Your task to perform on an android device: change the upload size in google photos Image 0: 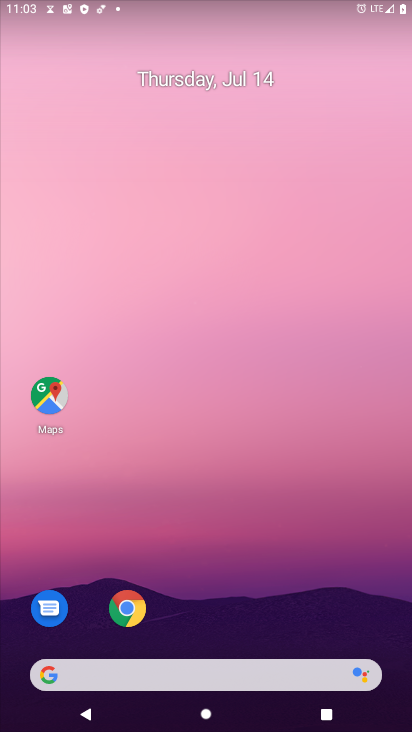
Step 0: drag from (253, 699) to (234, 199)
Your task to perform on an android device: change the upload size in google photos Image 1: 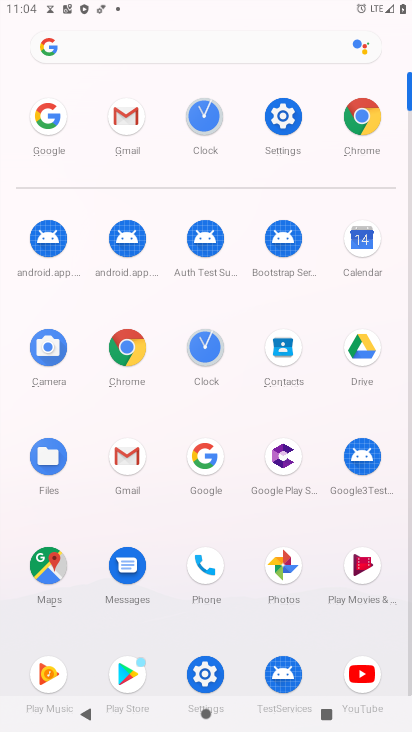
Step 1: click (290, 561)
Your task to perform on an android device: change the upload size in google photos Image 2: 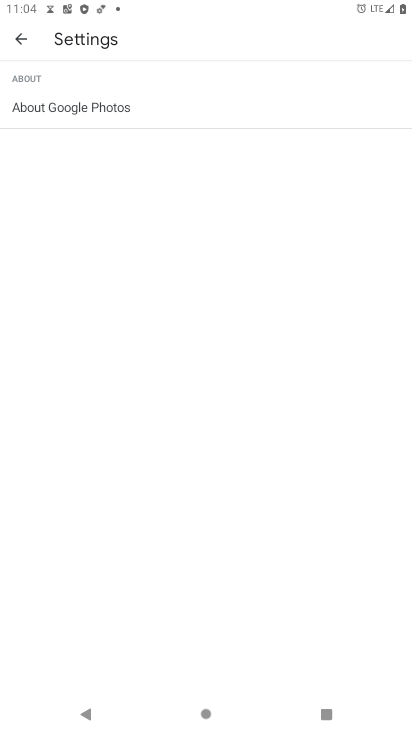
Step 2: click (21, 40)
Your task to perform on an android device: change the upload size in google photos Image 3: 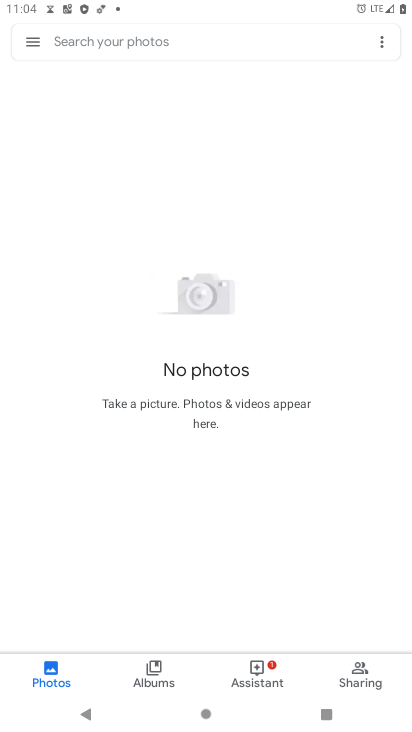
Step 3: click (31, 37)
Your task to perform on an android device: change the upload size in google photos Image 4: 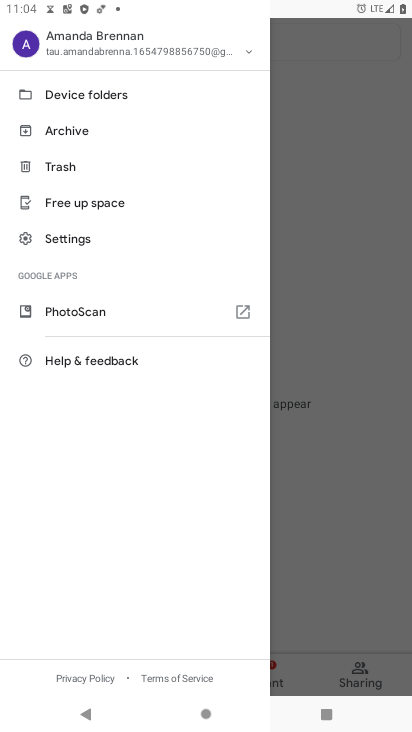
Step 4: click (63, 232)
Your task to perform on an android device: change the upload size in google photos Image 5: 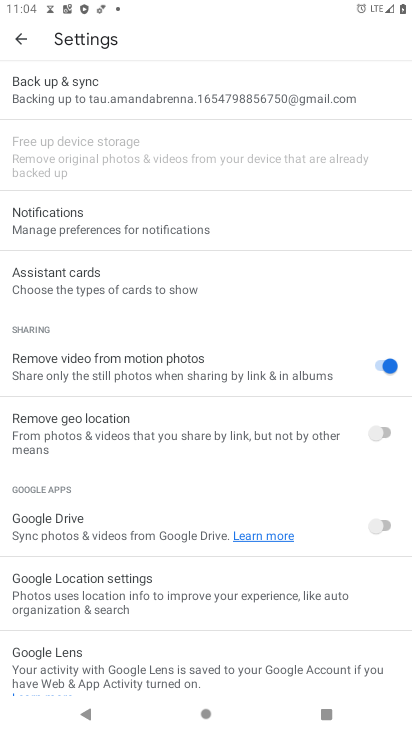
Step 5: click (50, 80)
Your task to perform on an android device: change the upload size in google photos Image 6: 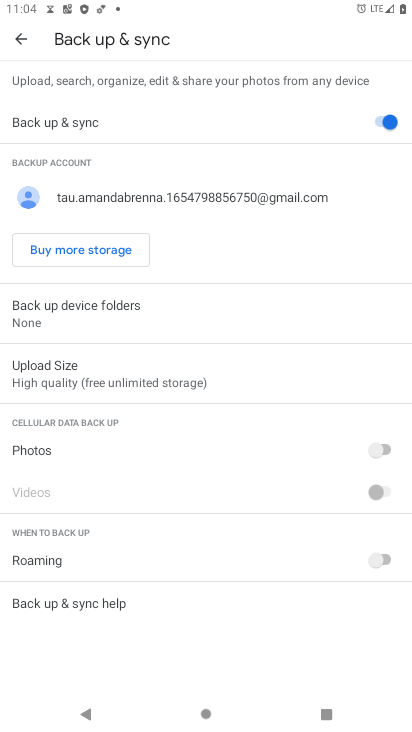
Step 6: click (48, 364)
Your task to perform on an android device: change the upload size in google photos Image 7: 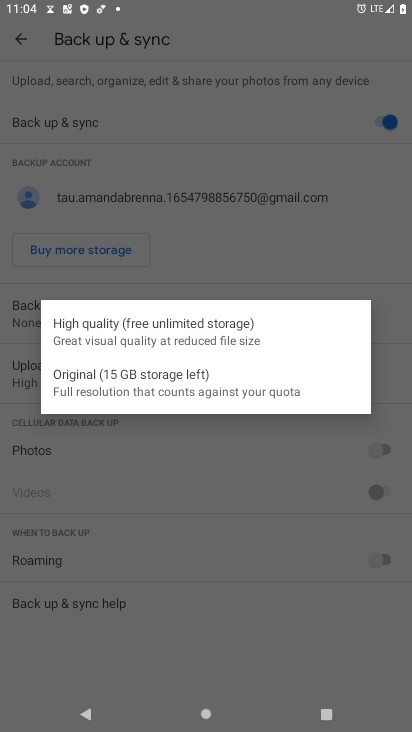
Step 7: click (83, 380)
Your task to perform on an android device: change the upload size in google photos Image 8: 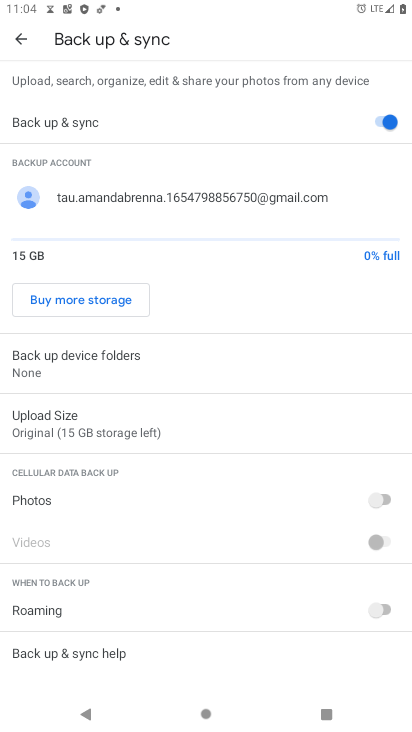
Step 8: task complete